Your task to perform on an android device: Open the calendar app, open the side menu, and click the "Day" option Image 0: 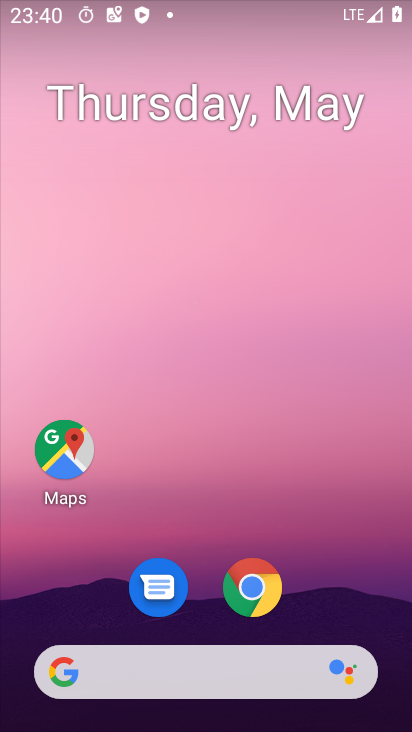
Step 0: drag from (347, 623) to (231, 11)
Your task to perform on an android device: Open the calendar app, open the side menu, and click the "Day" option Image 1: 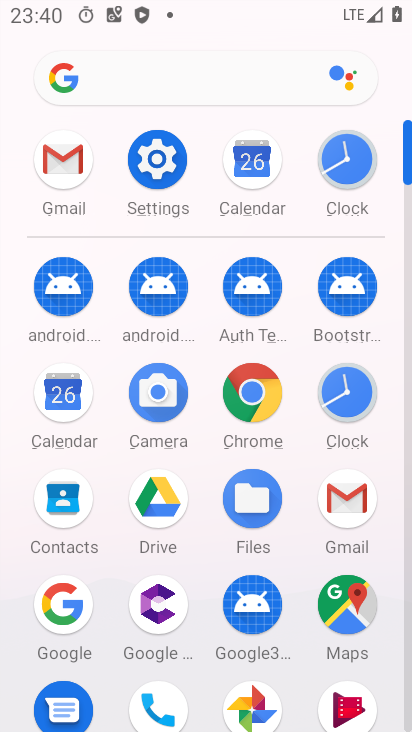
Step 1: click (240, 161)
Your task to perform on an android device: Open the calendar app, open the side menu, and click the "Day" option Image 2: 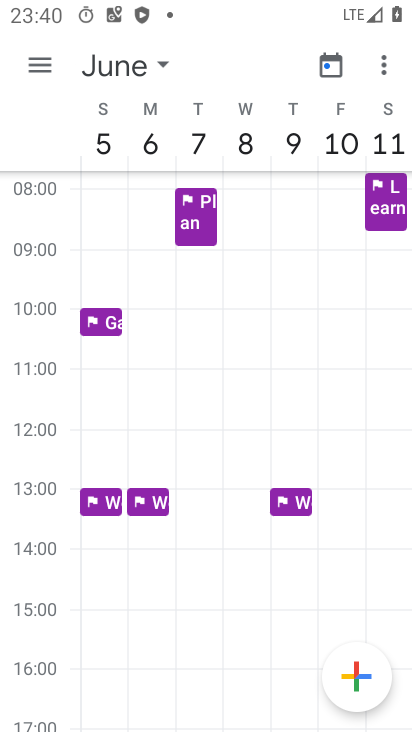
Step 2: click (48, 64)
Your task to perform on an android device: Open the calendar app, open the side menu, and click the "Day" option Image 3: 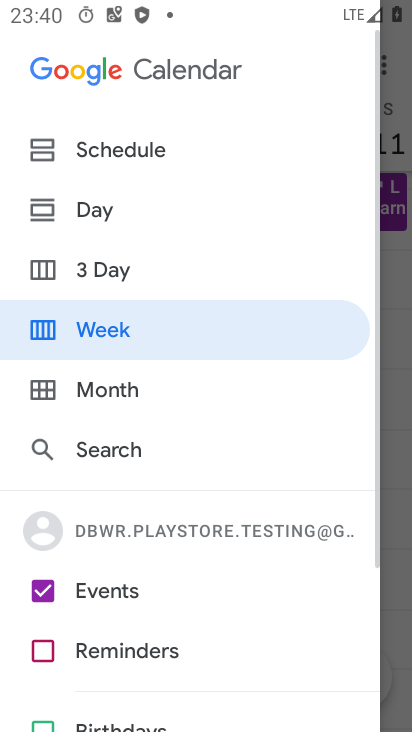
Step 3: click (87, 207)
Your task to perform on an android device: Open the calendar app, open the side menu, and click the "Day" option Image 4: 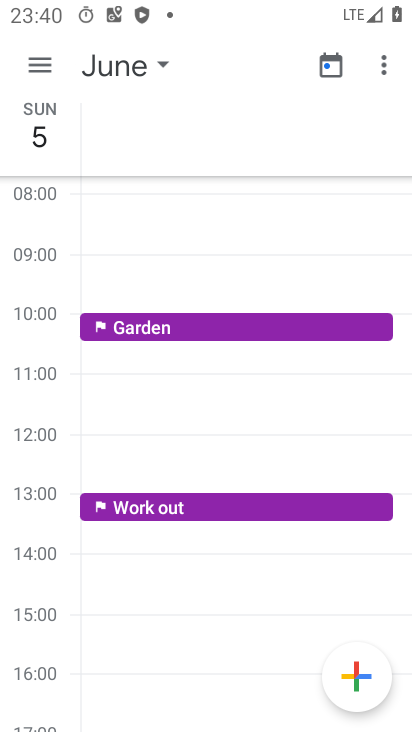
Step 4: task complete